Your task to perform on an android device: Open eBay Image 0: 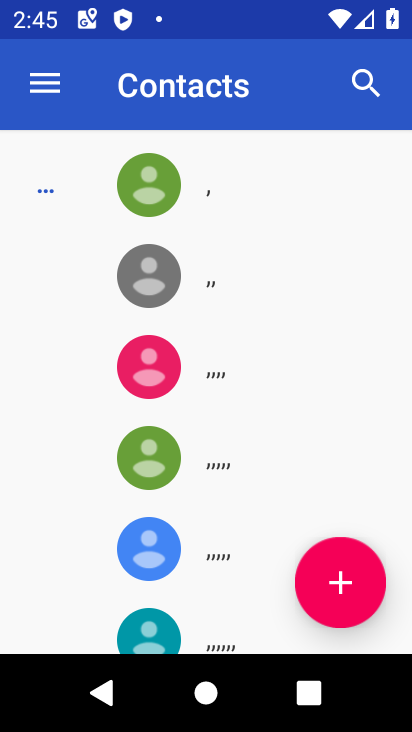
Step 0: press home button
Your task to perform on an android device: Open eBay Image 1: 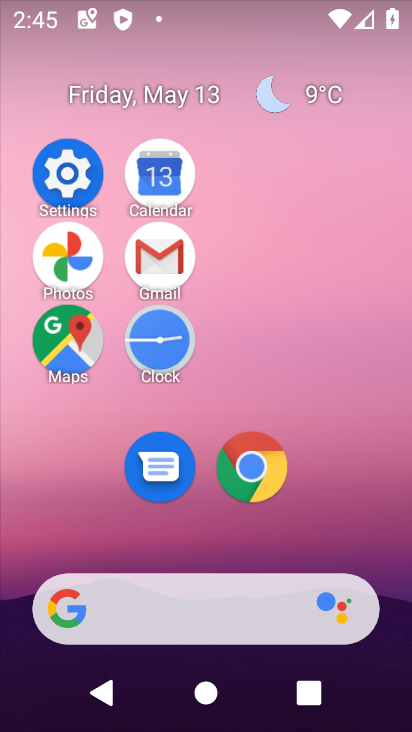
Step 1: click (248, 475)
Your task to perform on an android device: Open eBay Image 2: 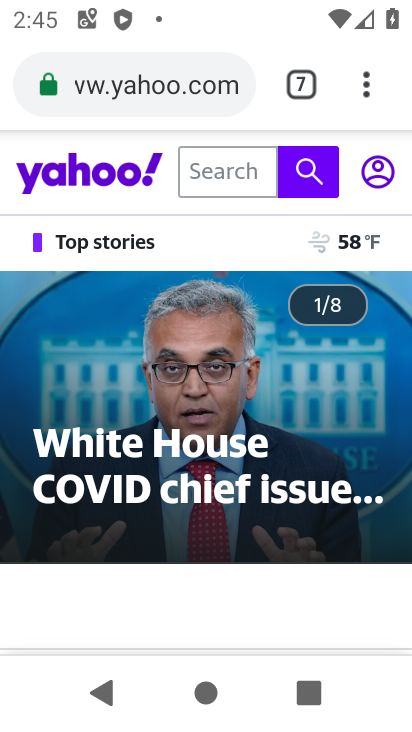
Step 2: click (308, 89)
Your task to perform on an android device: Open eBay Image 3: 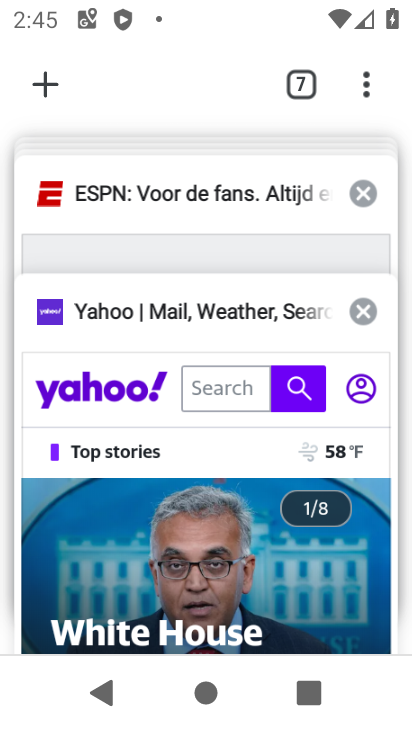
Step 3: drag from (209, 200) to (197, 557)
Your task to perform on an android device: Open eBay Image 4: 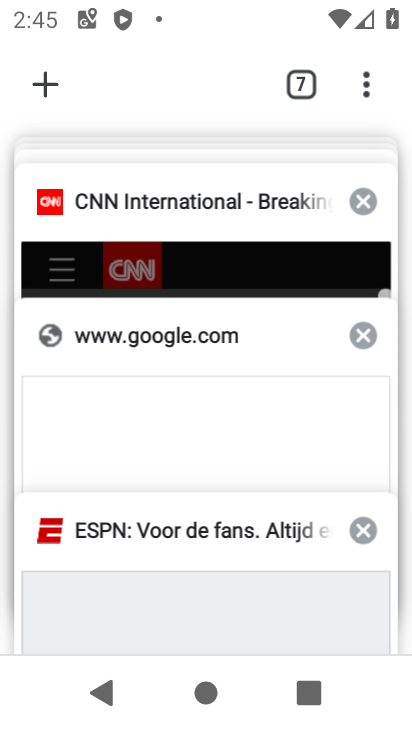
Step 4: drag from (211, 252) to (217, 519)
Your task to perform on an android device: Open eBay Image 5: 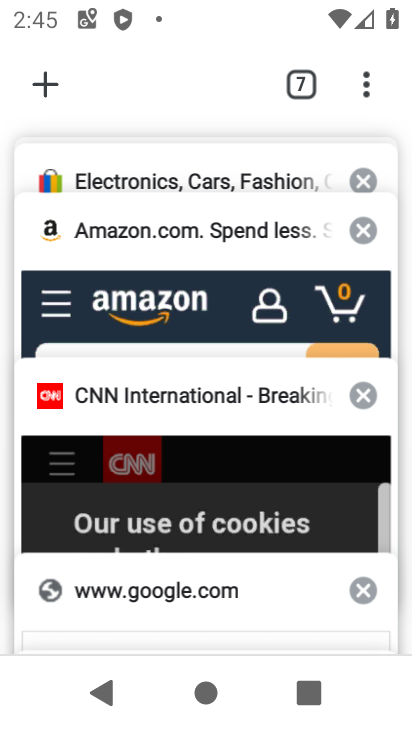
Step 5: drag from (170, 230) to (165, 451)
Your task to perform on an android device: Open eBay Image 6: 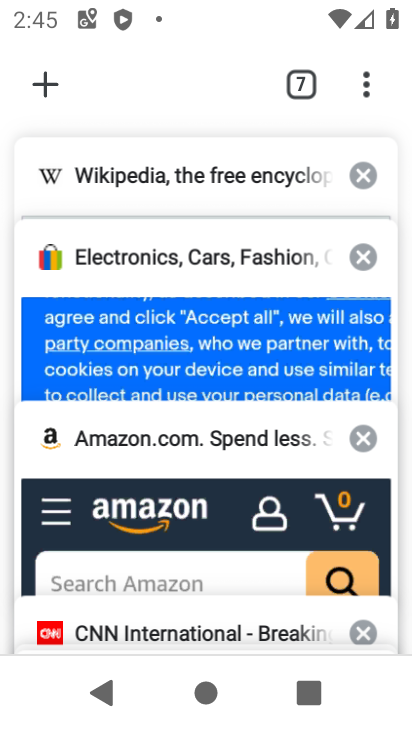
Step 6: click (170, 274)
Your task to perform on an android device: Open eBay Image 7: 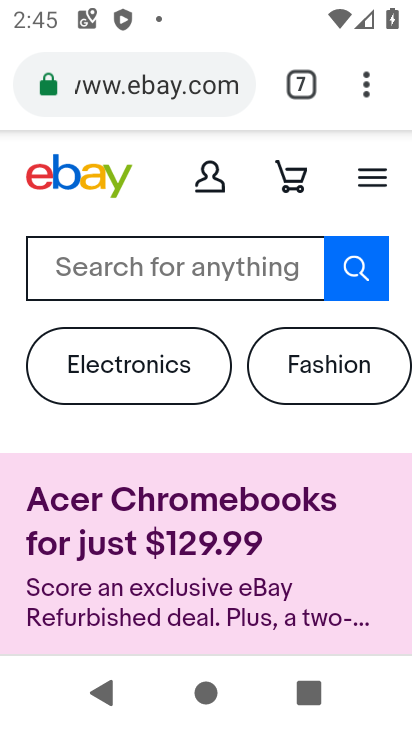
Step 7: task complete